Your task to perform on an android device: change the clock display to analog Image 0: 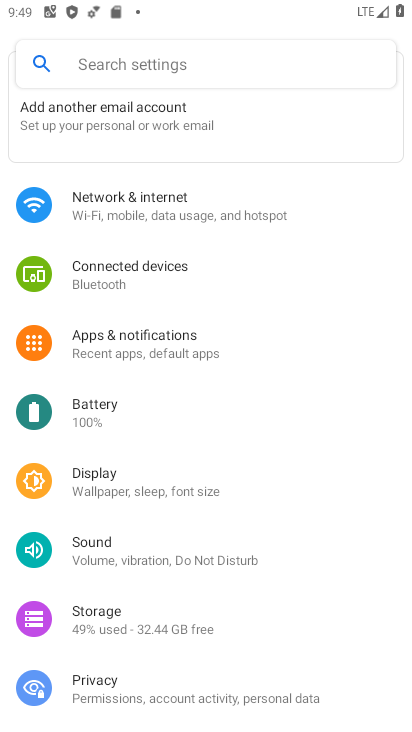
Step 0: press home button
Your task to perform on an android device: change the clock display to analog Image 1: 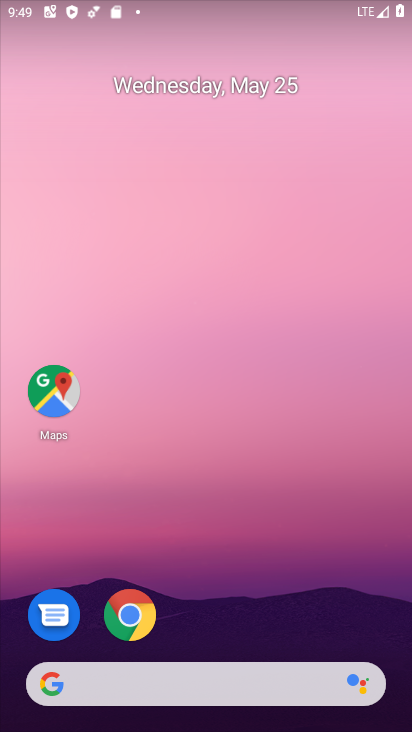
Step 1: drag from (204, 528) to (186, 26)
Your task to perform on an android device: change the clock display to analog Image 2: 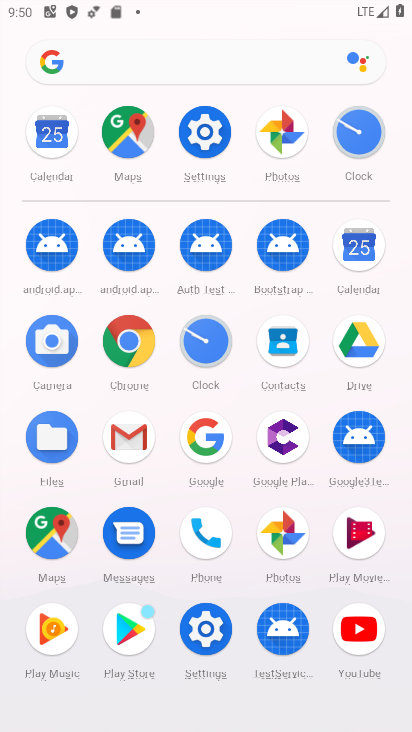
Step 2: click (359, 135)
Your task to perform on an android device: change the clock display to analog Image 3: 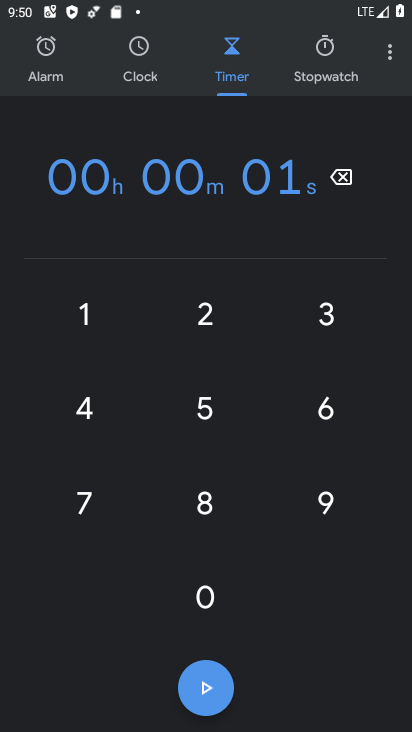
Step 3: click (148, 67)
Your task to perform on an android device: change the clock display to analog Image 4: 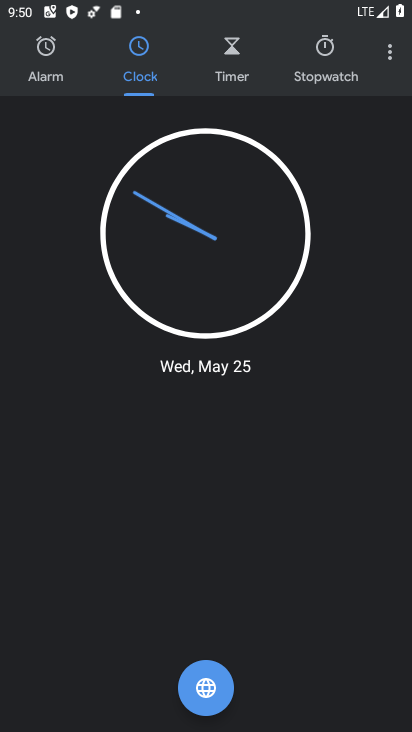
Step 4: task complete